Your task to perform on an android device: turn on bluetooth scan Image 0: 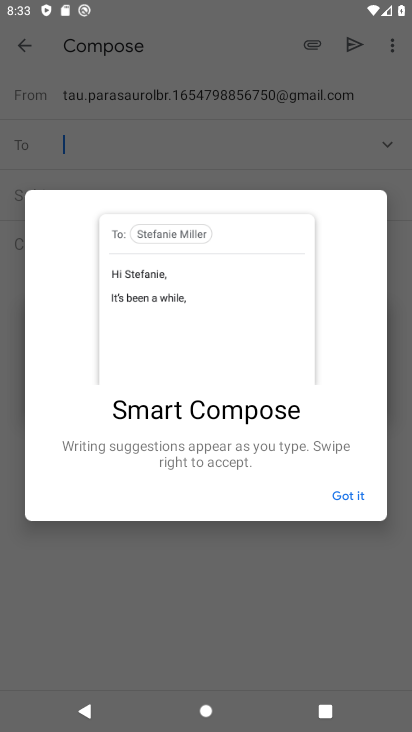
Step 0: press home button
Your task to perform on an android device: turn on bluetooth scan Image 1: 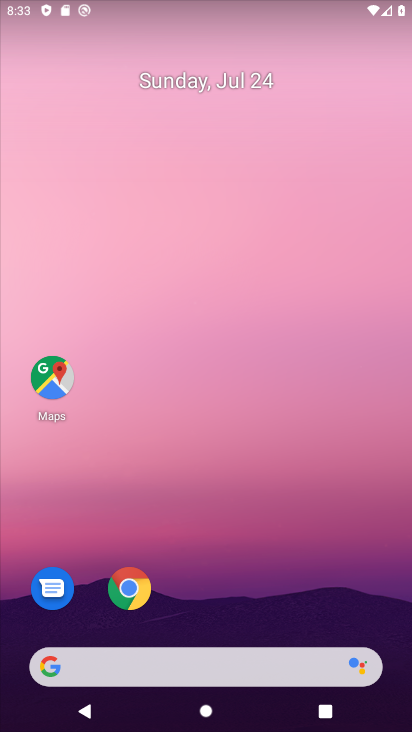
Step 1: drag from (284, 631) to (280, 166)
Your task to perform on an android device: turn on bluetooth scan Image 2: 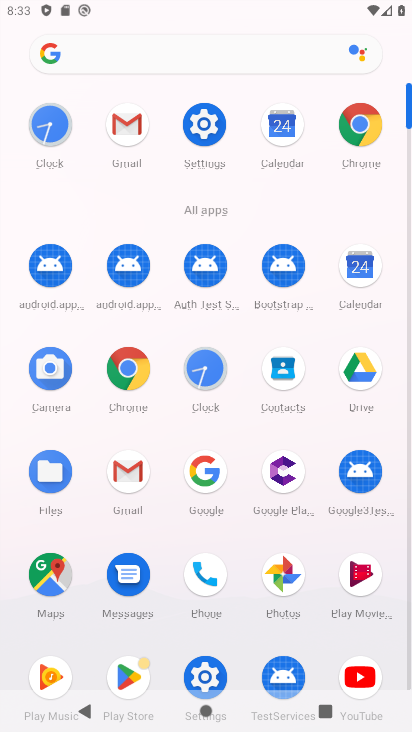
Step 2: click (208, 115)
Your task to perform on an android device: turn on bluetooth scan Image 3: 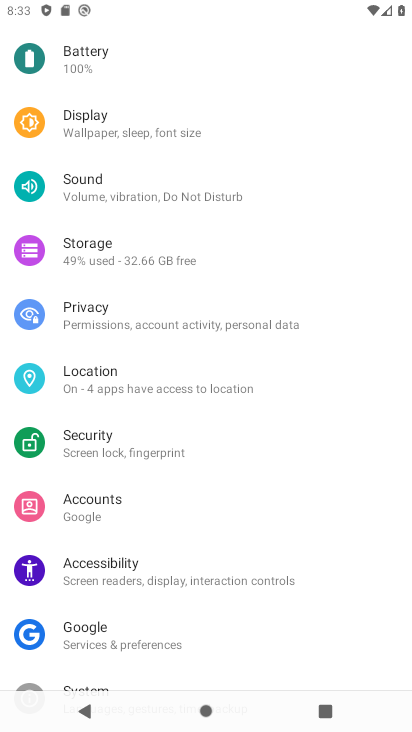
Step 3: click (128, 387)
Your task to perform on an android device: turn on bluetooth scan Image 4: 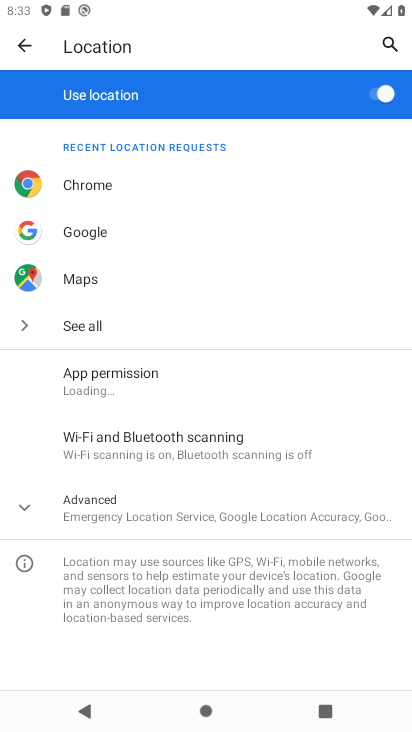
Step 4: click (139, 431)
Your task to perform on an android device: turn on bluetooth scan Image 5: 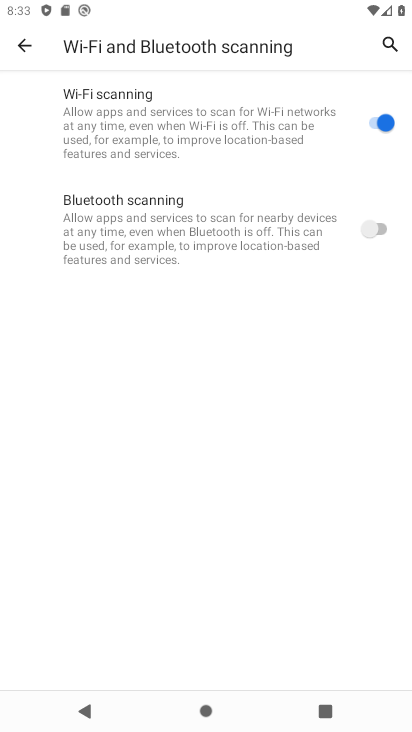
Step 5: click (371, 224)
Your task to perform on an android device: turn on bluetooth scan Image 6: 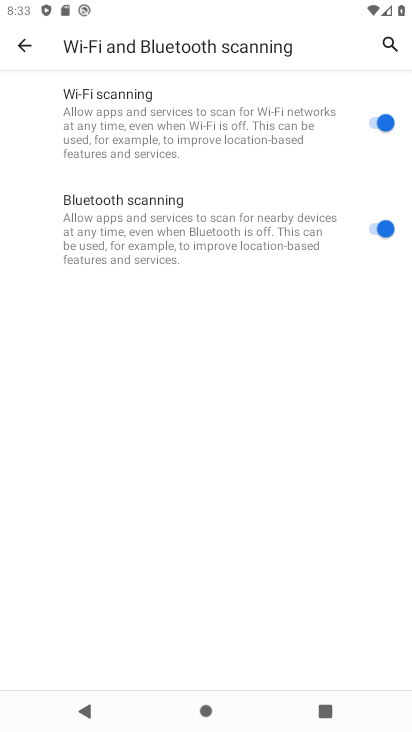
Step 6: task complete